Your task to perform on an android device: What is the recent news? Image 0: 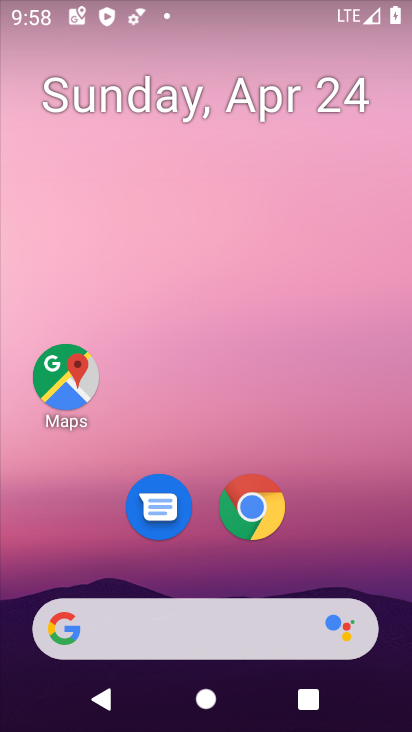
Step 0: click (260, 510)
Your task to perform on an android device: What is the recent news? Image 1: 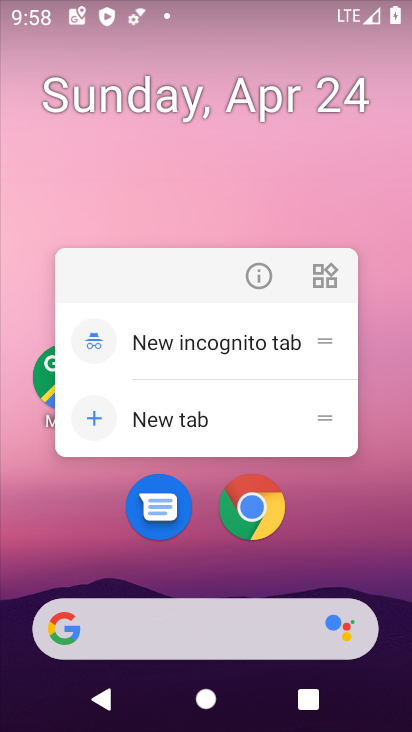
Step 1: click (257, 279)
Your task to perform on an android device: What is the recent news? Image 2: 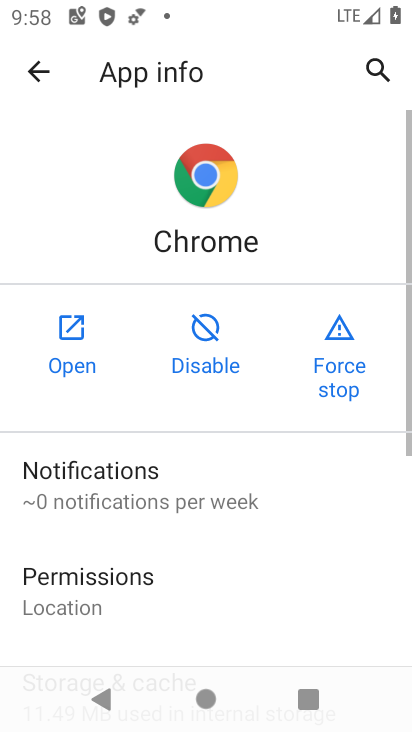
Step 2: click (51, 338)
Your task to perform on an android device: What is the recent news? Image 3: 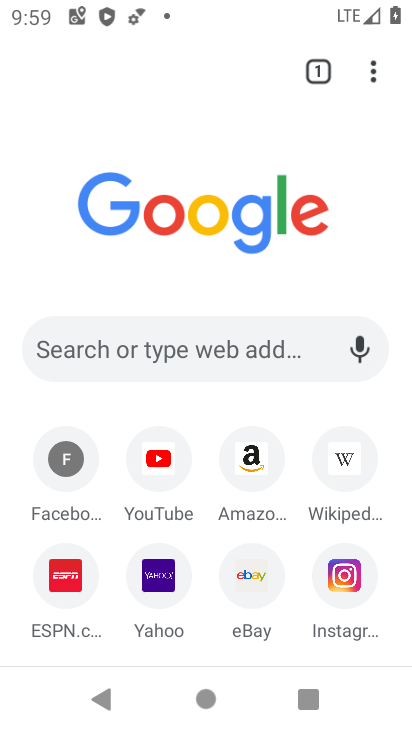
Step 3: click (110, 352)
Your task to perform on an android device: What is the recent news? Image 4: 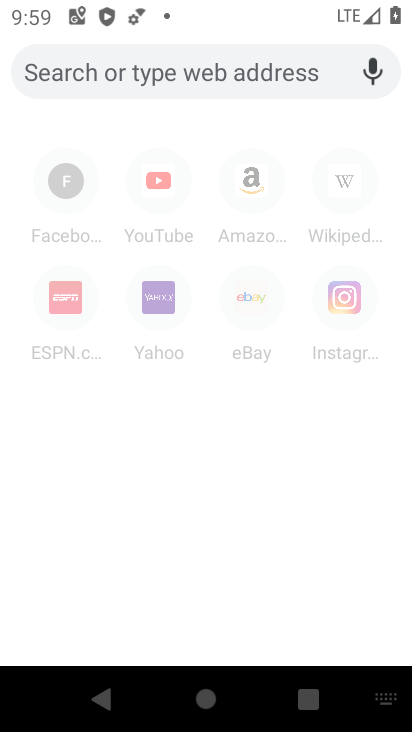
Step 4: type "recent news"
Your task to perform on an android device: What is the recent news? Image 5: 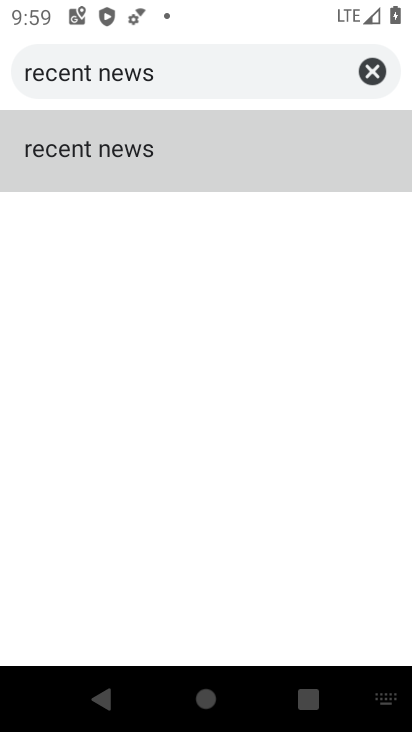
Step 5: click (115, 157)
Your task to perform on an android device: What is the recent news? Image 6: 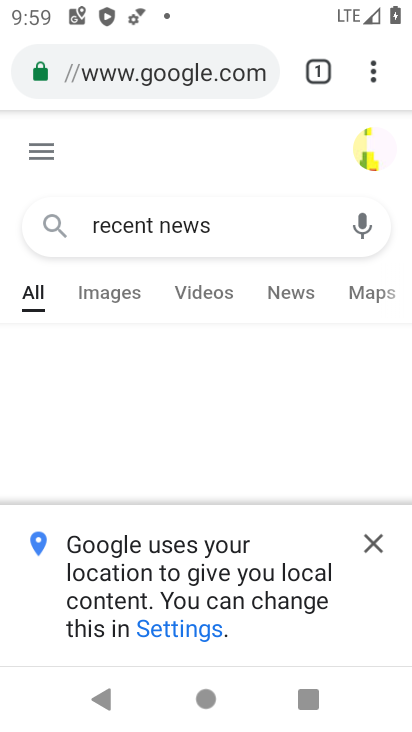
Step 6: click (369, 538)
Your task to perform on an android device: What is the recent news? Image 7: 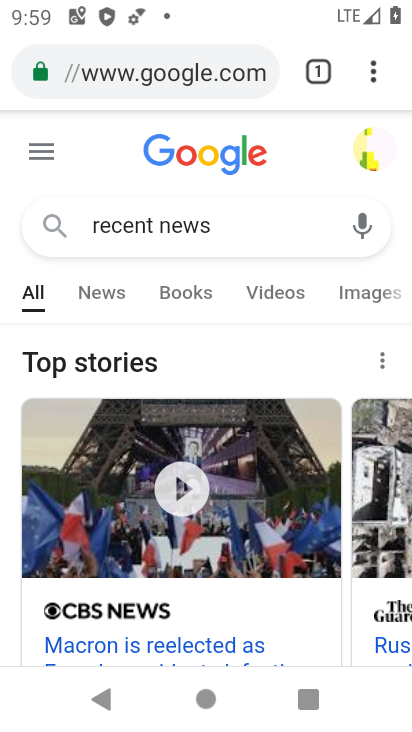
Step 7: task complete